Your task to perform on an android device: allow cookies in the chrome app Image 0: 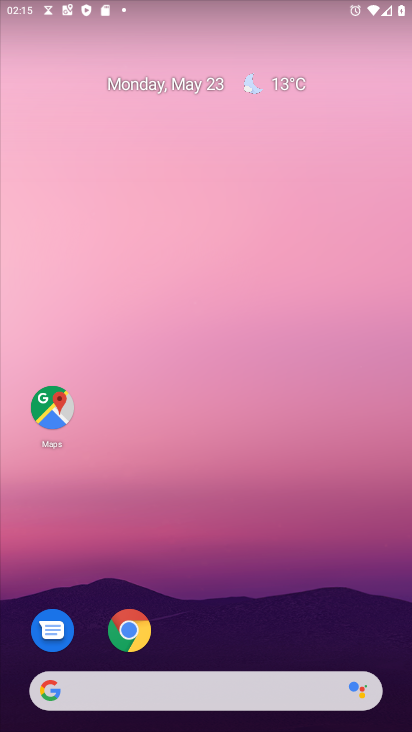
Step 0: click (131, 632)
Your task to perform on an android device: allow cookies in the chrome app Image 1: 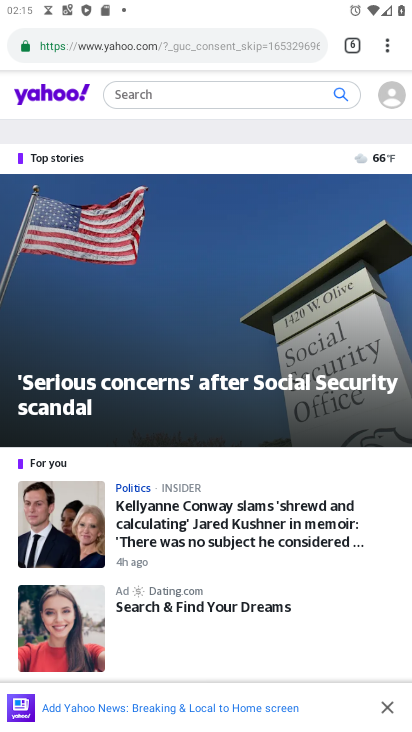
Step 1: click (385, 44)
Your task to perform on an android device: allow cookies in the chrome app Image 2: 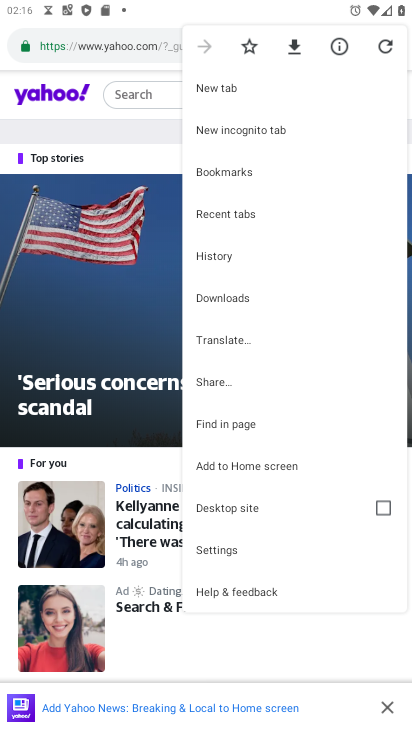
Step 2: click (255, 548)
Your task to perform on an android device: allow cookies in the chrome app Image 3: 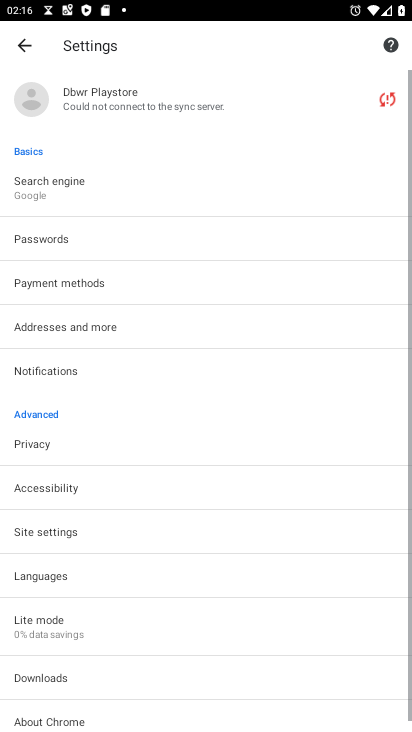
Step 3: click (81, 539)
Your task to perform on an android device: allow cookies in the chrome app Image 4: 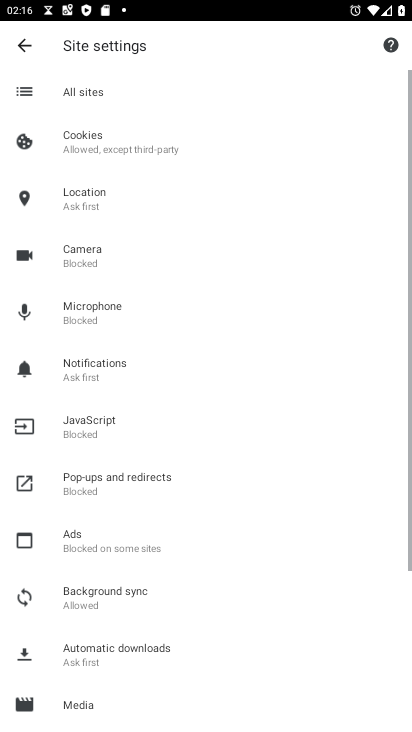
Step 4: click (149, 145)
Your task to perform on an android device: allow cookies in the chrome app Image 5: 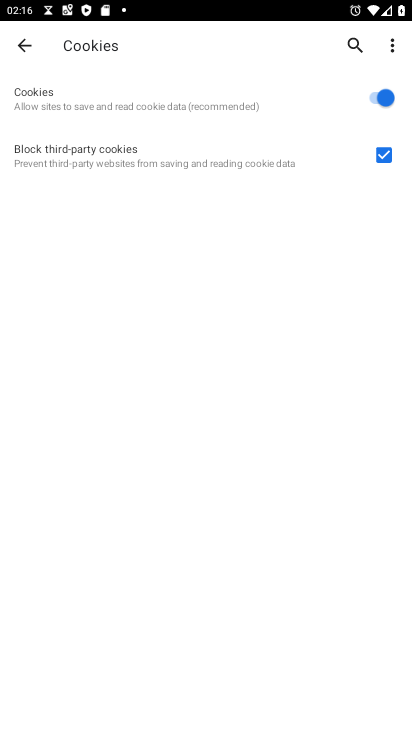
Step 5: task complete